Your task to perform on an android device: uninstall "YouTube Kids" Image 0: 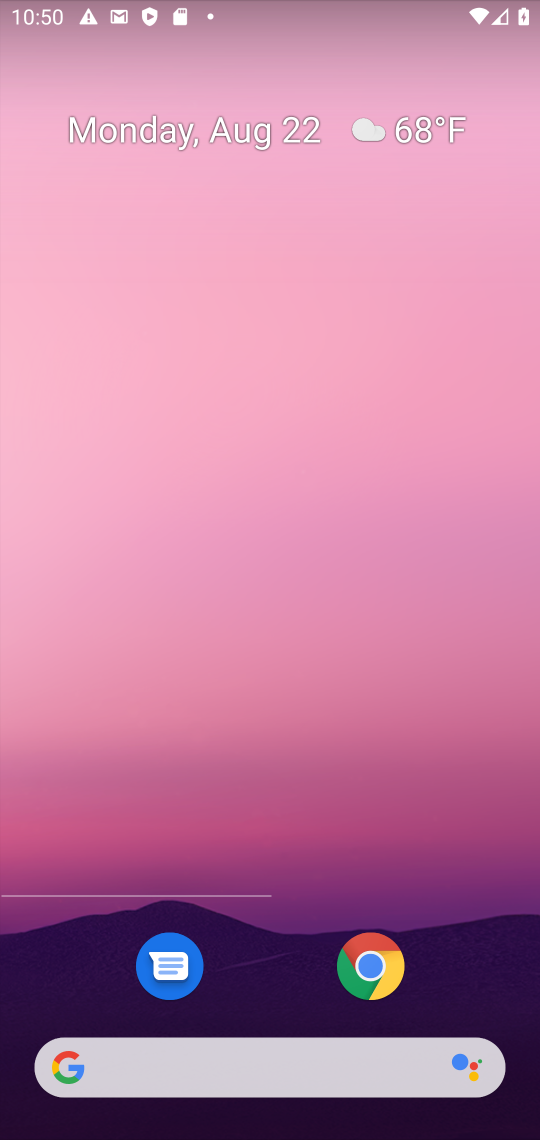
Step 0: press home button
Your task to perform on an android device: uninstall "YouTube Kids" Image 1: 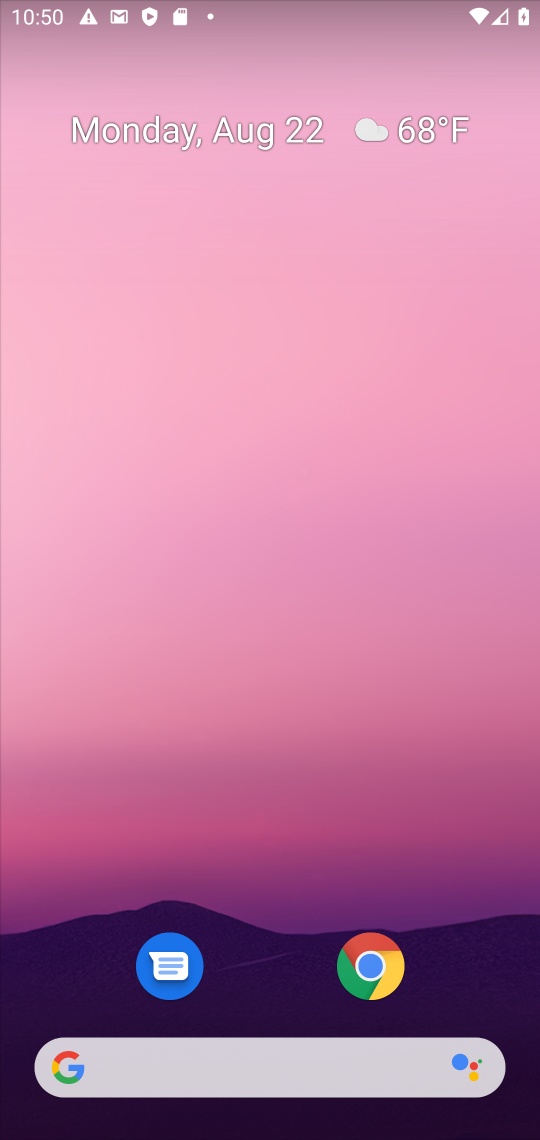
Step 1: drag from (480, 886) to (428, 118)
Your task to perform on an android device: uninstall "YouTube Kids" Image 2: 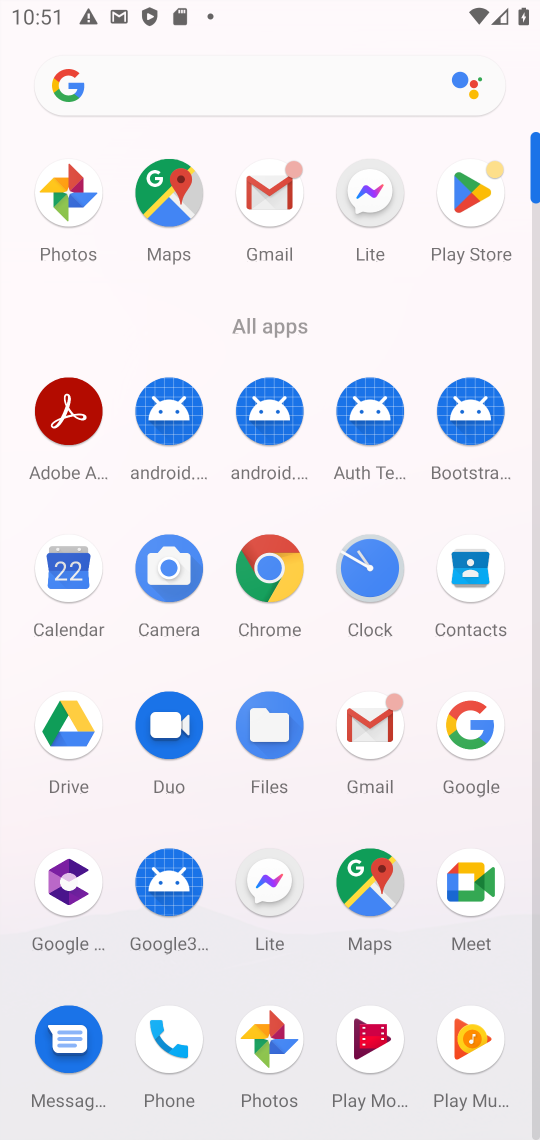
Step 2: click (476, 185)
Your task to perform on an android device: uninstall "YouTube Kids" Image 3: 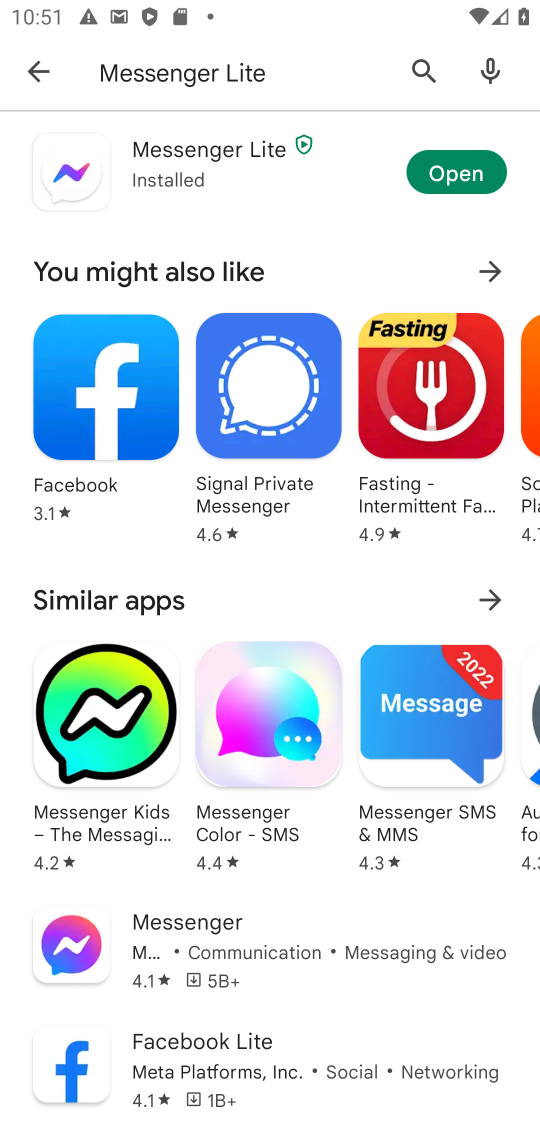
Step 3: press back button
Your task to perform on an android device: uninstall "YouTube Kids" Image 4: 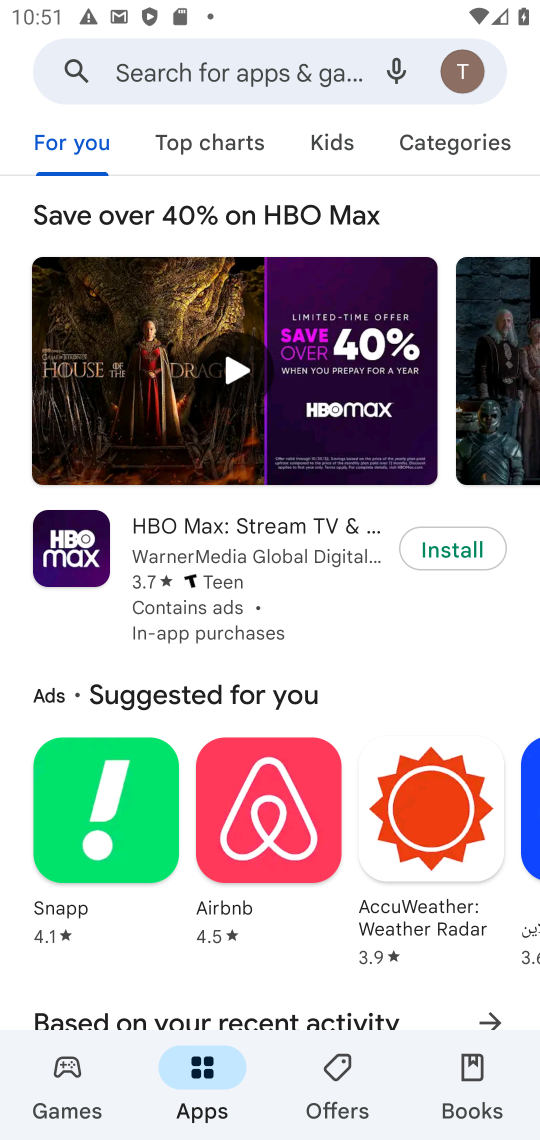
Step 4: click (177, 66)
Your task to perform on an android device: uninstall "YouTube Kids" Image 5: 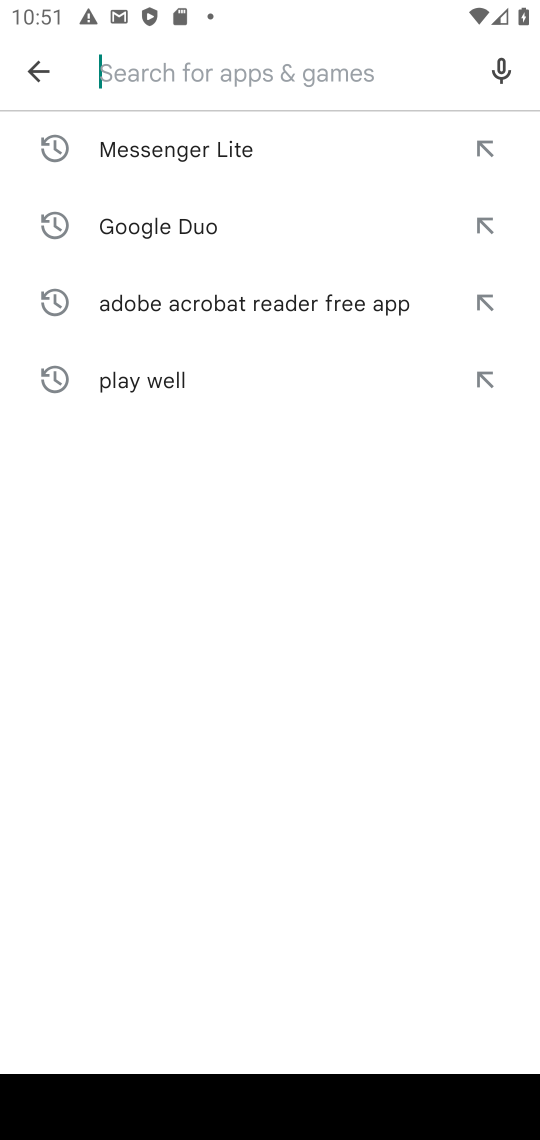
Step 5: type "youtube kids"
Your task to perform on an android device: uninstall "YouTube Kids" Image 6: 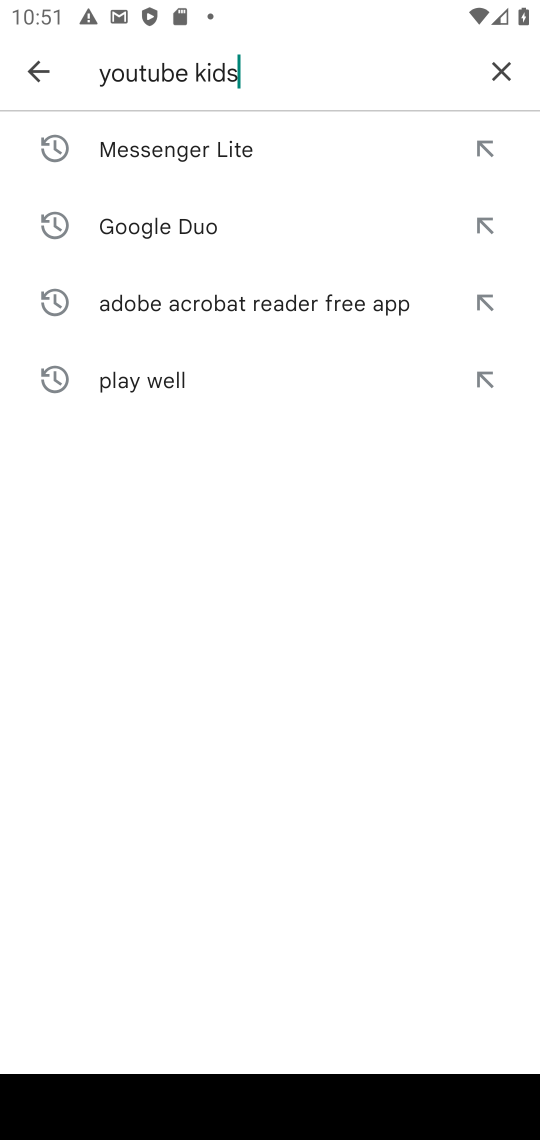
Step 6: press enter
Your task to perform on an android device: uninstall "YouTube Kids" Image 7: 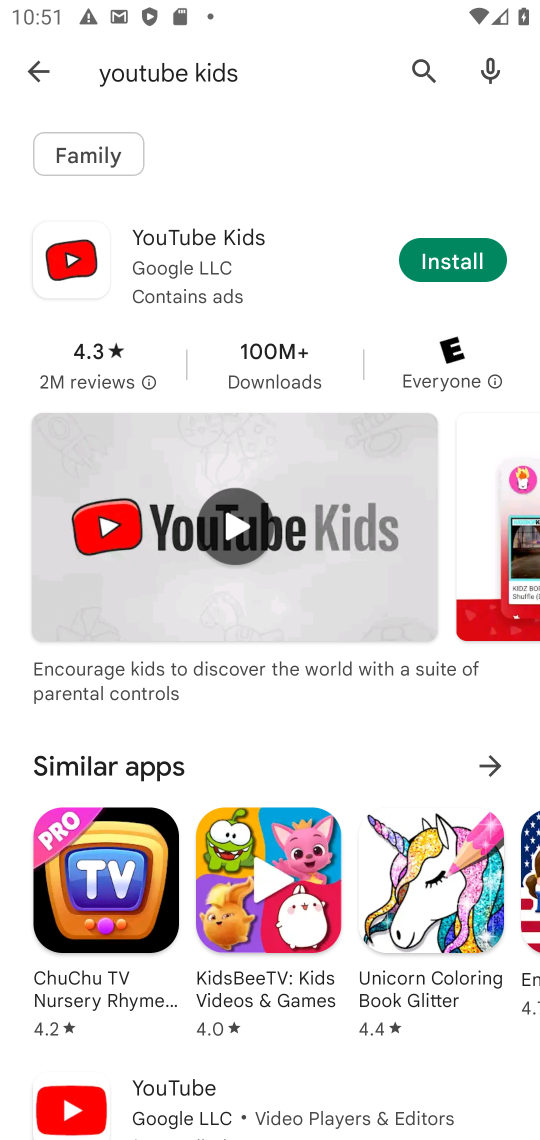
Step 7: task complete